Your task to perform on an android device: Open internet settings Image 0: 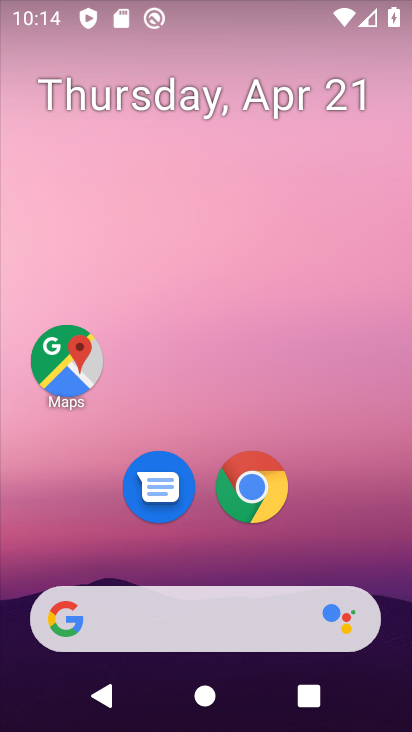
Step 0: drag from (365, 440) to (361, 120)
Your task to perform on an android device: Open internet settings Image 1: 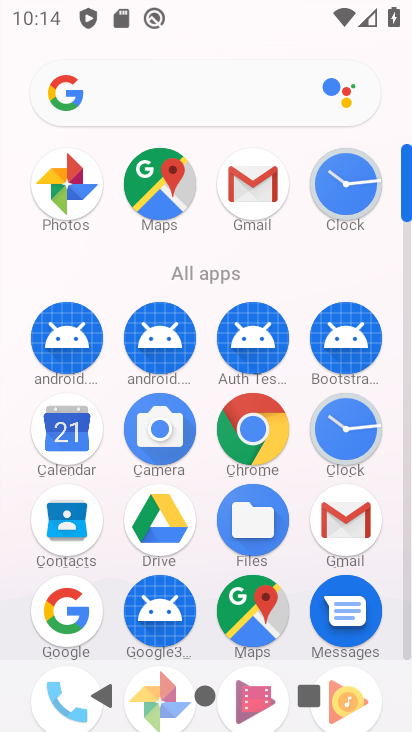
Step 1: drag from (301, 268) to (299, 24)
Your task to perform on an android device: Open internet settings Image 2: 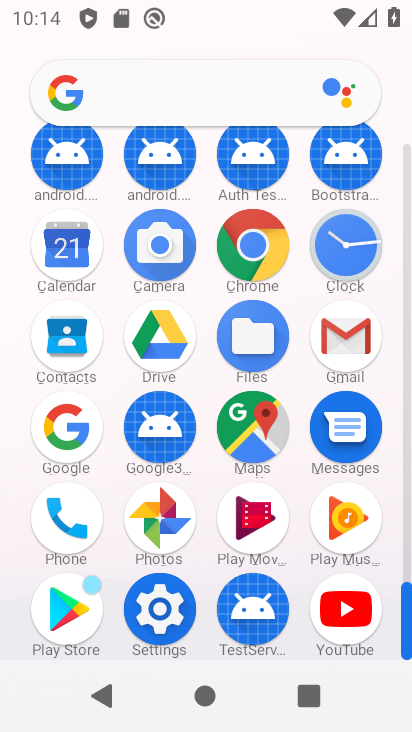
Step 2: click (165, 604)
Your task to perform on an android device: Open internet settings Image 3: 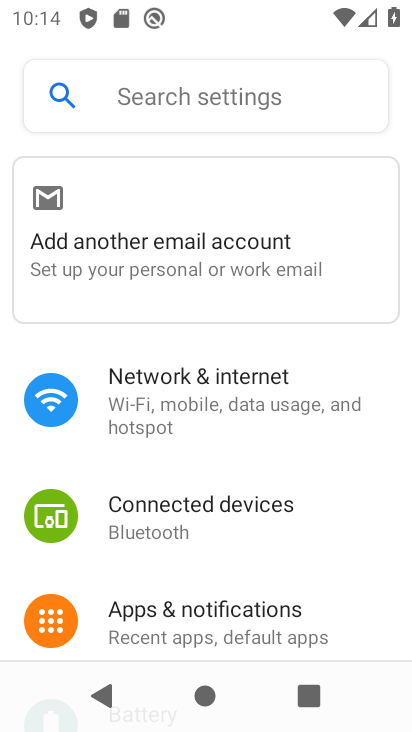
Step 3: click (170, 374)
Your task to perform on an android device: Open internet settings Image 4: 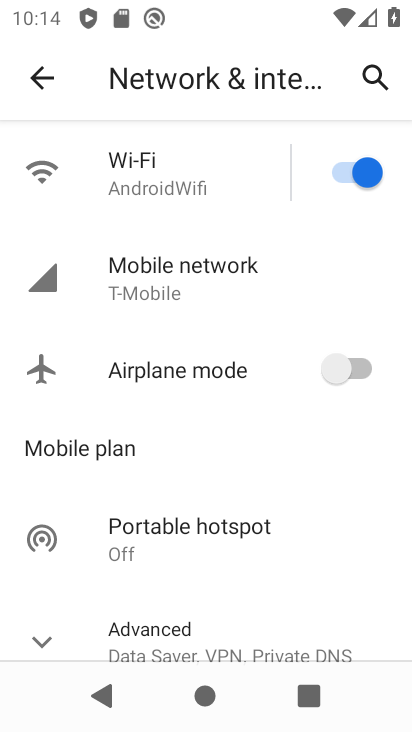
Step 4: task complete